Your task to perform on an android device: Go to internet settings Image 0: 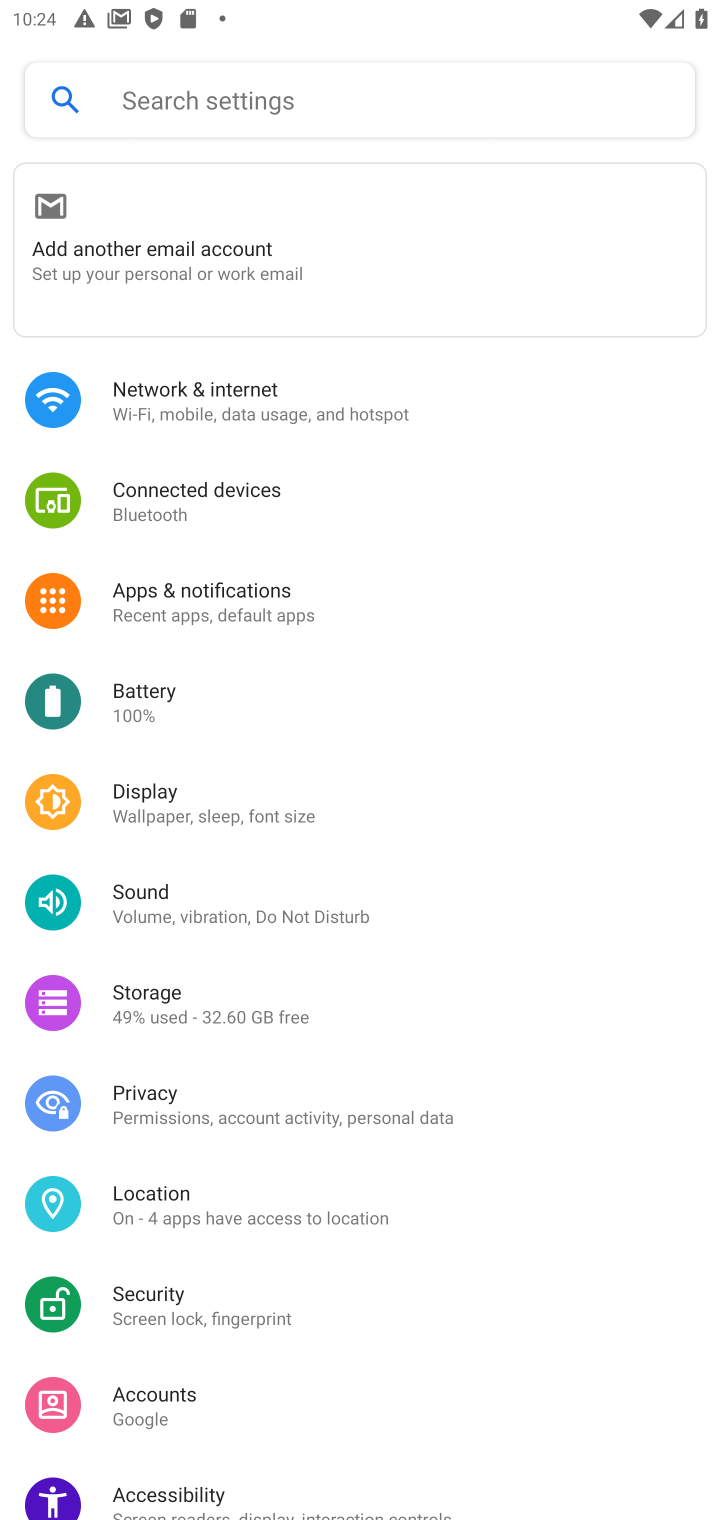
Step 0: click (238, 390)
Your task to perform on an android device: Go to internet settings Image 1: 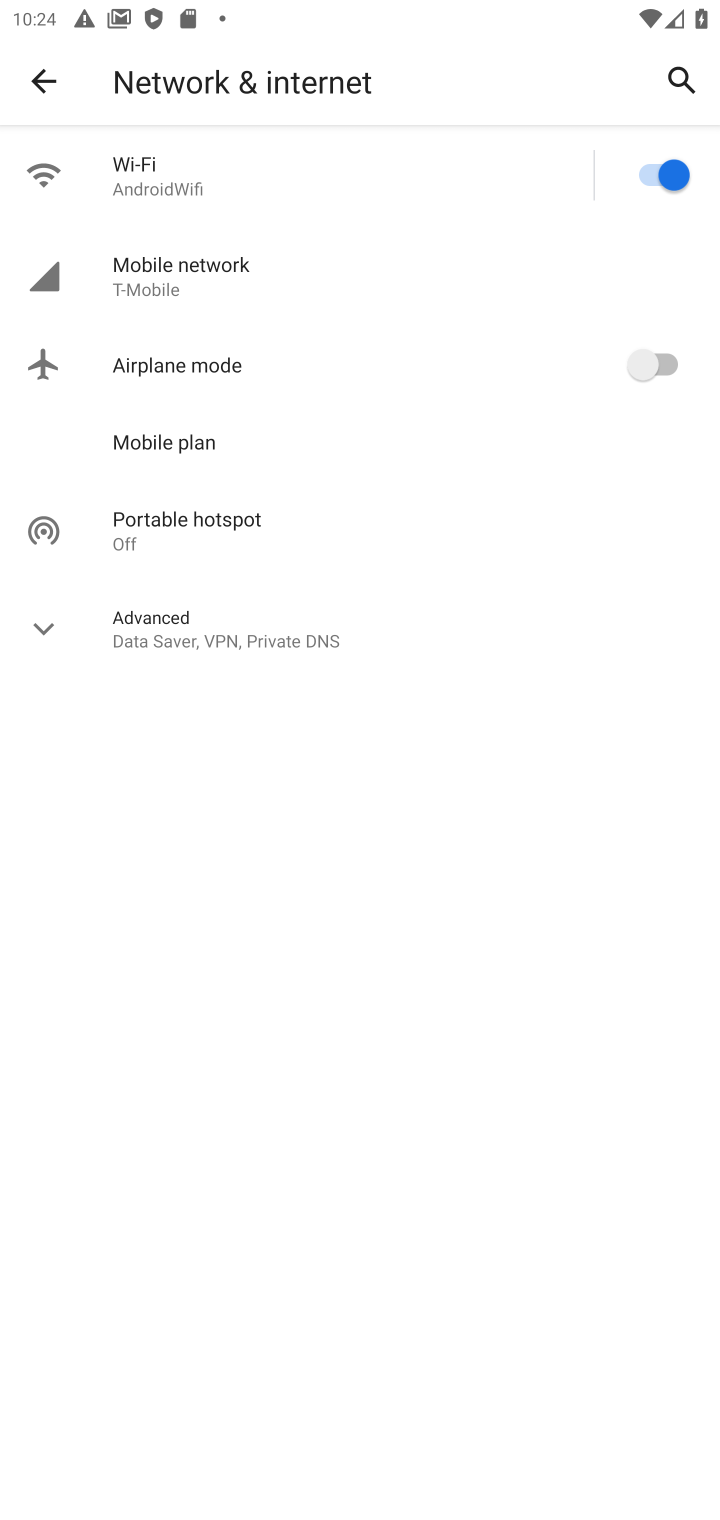
Step 1: task complete